Your task to perform on an android device: open sync settings in chrome Image 0: 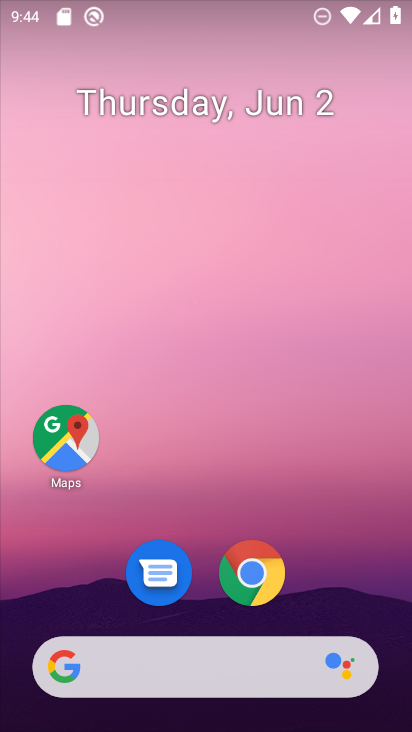
Step 0: click (243, 571)
Your task to perform on an android device: open sync settings in chrome Image 1: 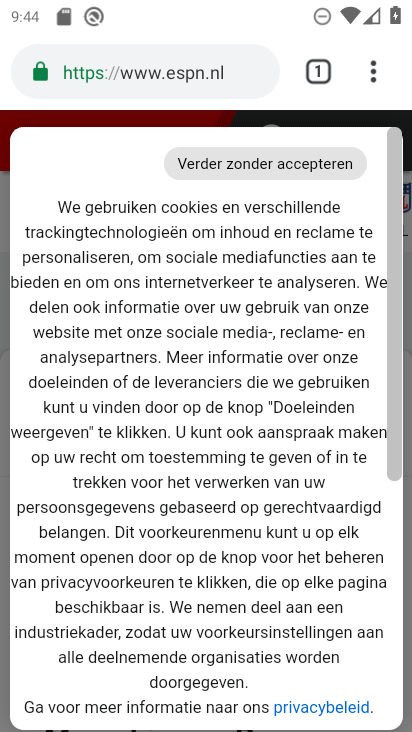
Step 1: drag from (378, 59) to (149, 564)
Your task to perform on an android device: open sync settings in chrome Image 2: 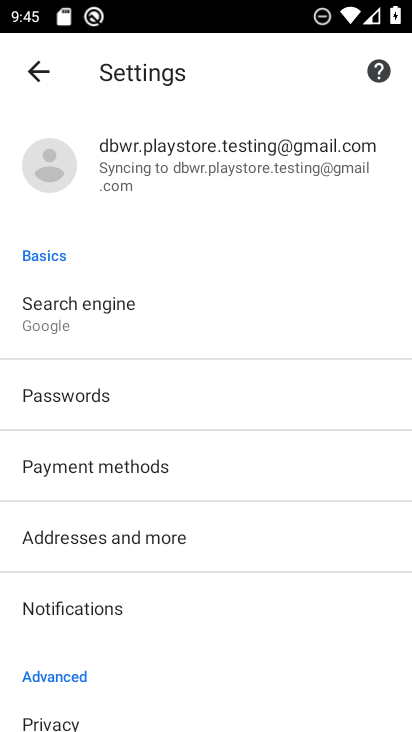
Step 2: drag from (203, 589) to (194, 244)
Your task to perform on an android device: open sync settings in chrome Image 3: 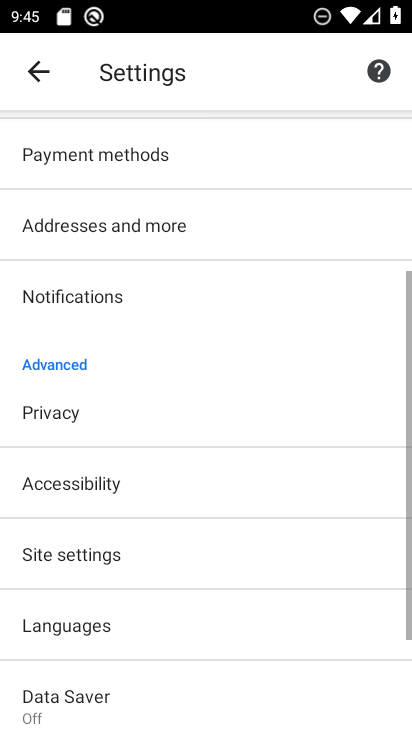
Step 3: click (213, 207)
Your task to perform on an android device: open sync settings in chrome Image 4: 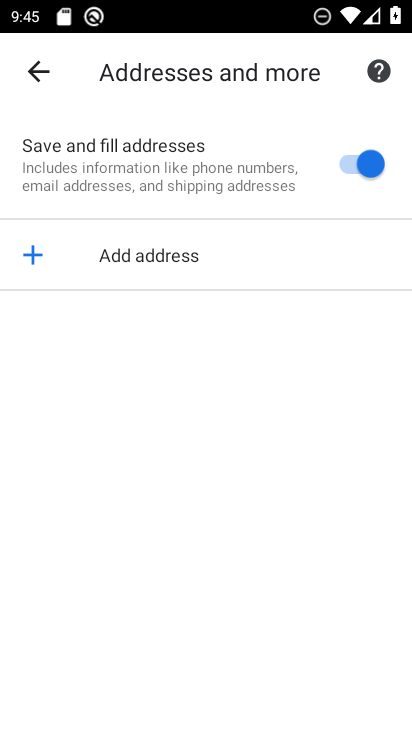
Step 4: click (32, 61)
Your task to perform on an android device: open sync settings in chrome Image 5: 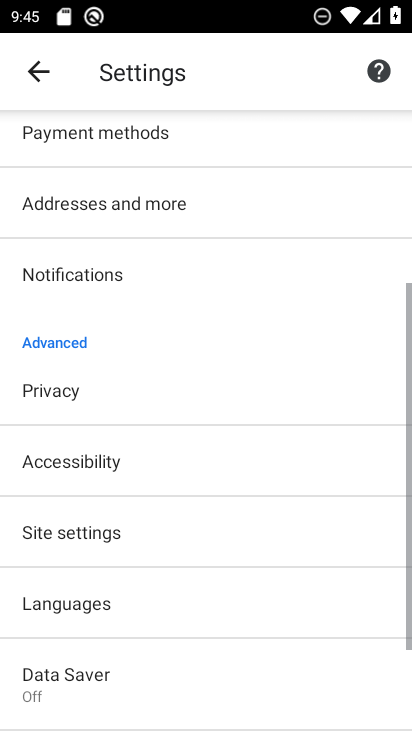
Step 5: drag from (174, 580) to (201, 248)
Your task to perform on an android device: open sync settings in chrome Image 6: 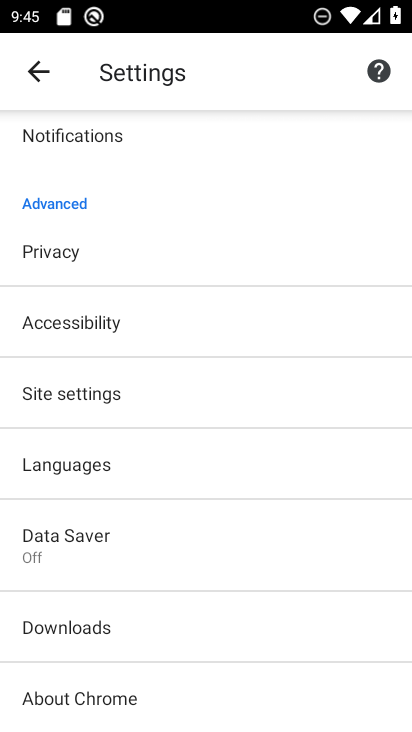
Step 6: drag from (186, 550) to (237, 251)
Your task to perform on an android device: open sync settings in chrome Image 7: 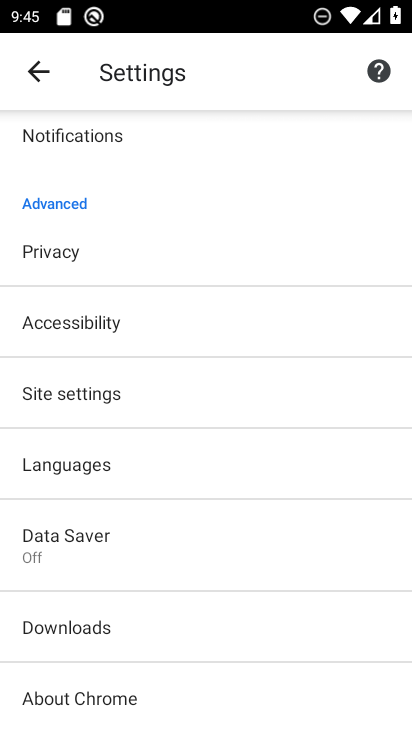
Step 7: drag from (185, 243) to (167, 729)
Your task to perform on an android device: open sync settings in chrome Image 8: 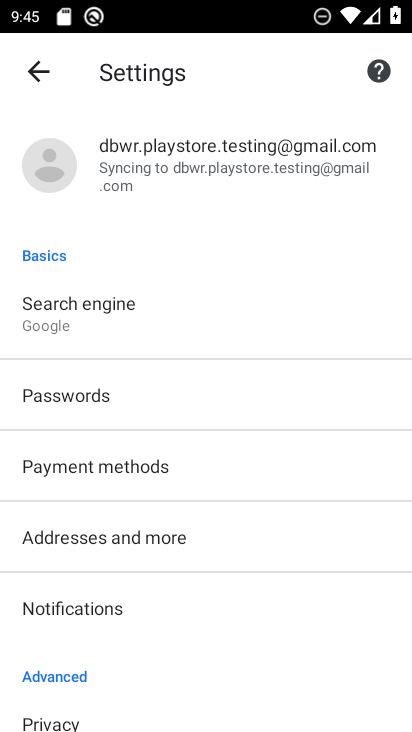
Step 8: click (207, 163)
Your task to perform on an android device: open sync settings in chrome Image 9: 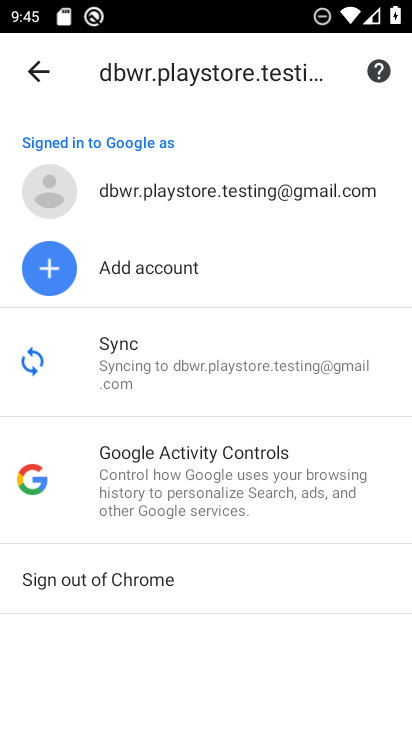
Step 9: click (156, 372)
Your task to perform on an android device: open sync settings in chrome Image 10: 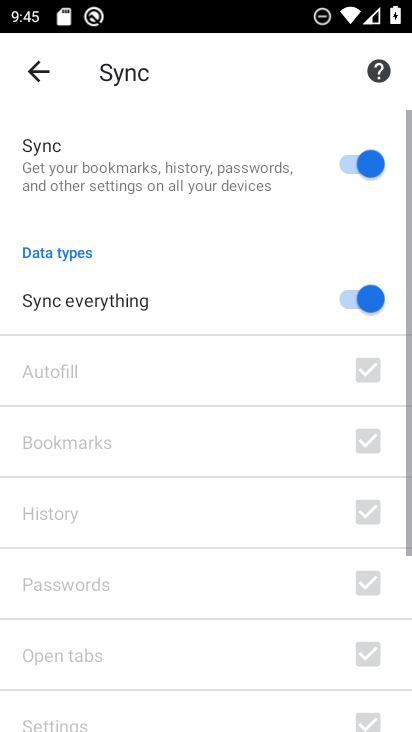
Step 10: task complete